Your task to perform on an android device: open the mobile data screen to see how much data has been used Image 0: 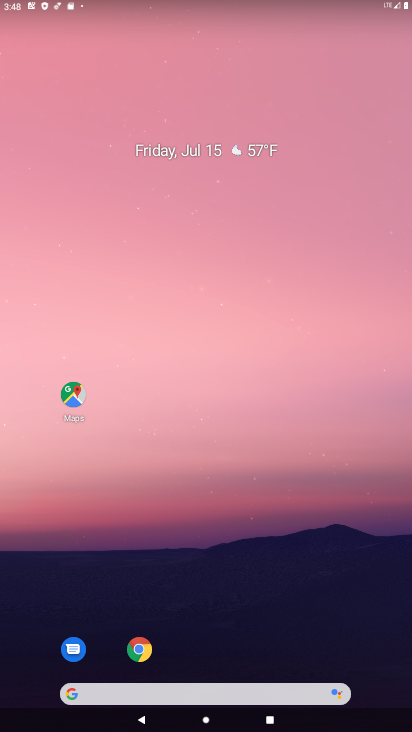
Step 0: drag from (235, 727) to (248, 302)
Your task to perform on an android device: open the mobile data screen to see how much data has been used Image 1: 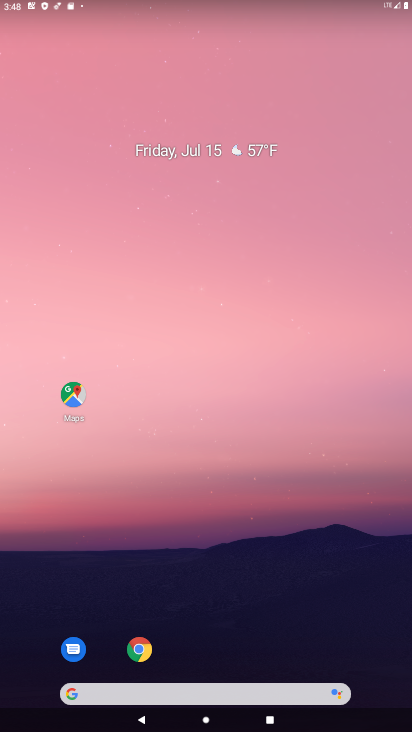
Step 1: drag from (236, 723) to (255, 80)
Your task to perform on an android device: open the mobile data screen to see how much data has been used Image 2: 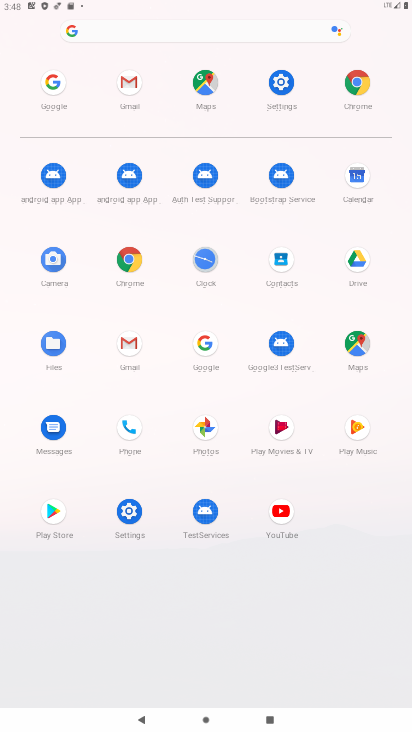
Step 2: click (279, 78)
Your task to perform on an android device: open the mobile data screen to see how much data has been used Image 3: 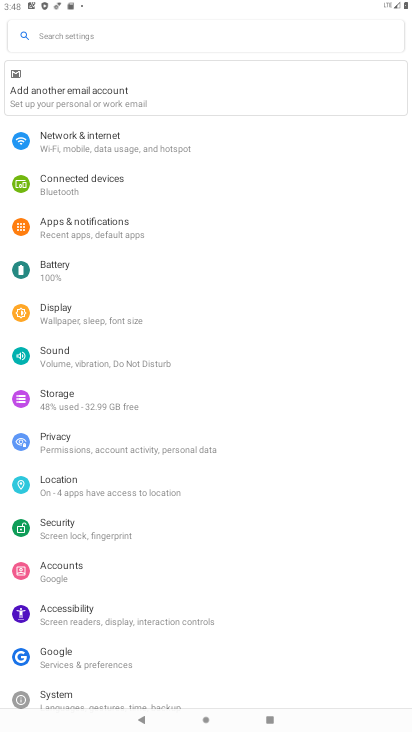
Step 3: click (79, 142)
Your task to perform on an android device: open the mobile data screen to see how much data has been used Image 4: 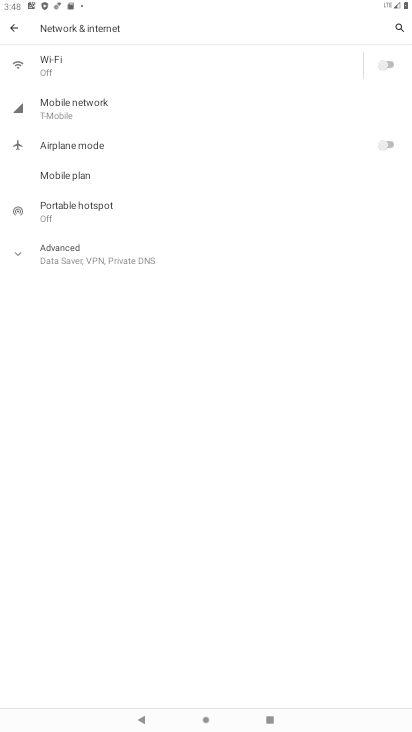
Step 4: click (75, 104)
Your task to perform on an android device: open the mobile data screen to see how much data has been used Image 5: 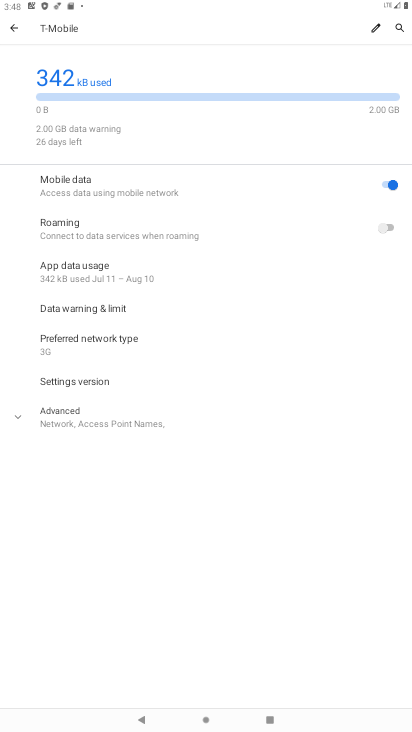
Step 5: click (87, 268)
Your task to perform on an android device: open the mobile data screen to see how much data has been used Image 6: 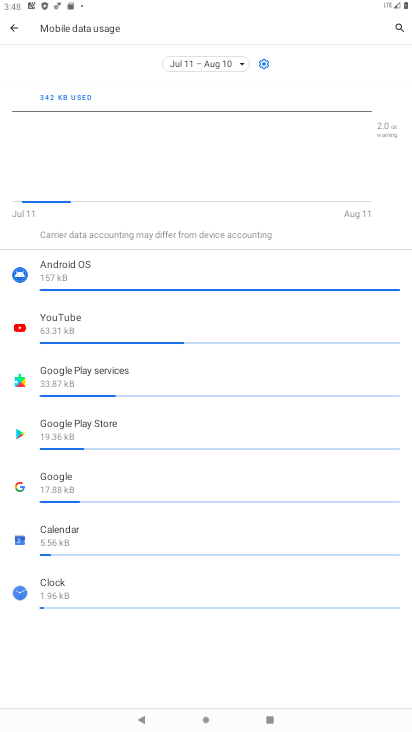
Step 6: task complete